Your task to perform on an android device: open device folders in google photos Image 0: 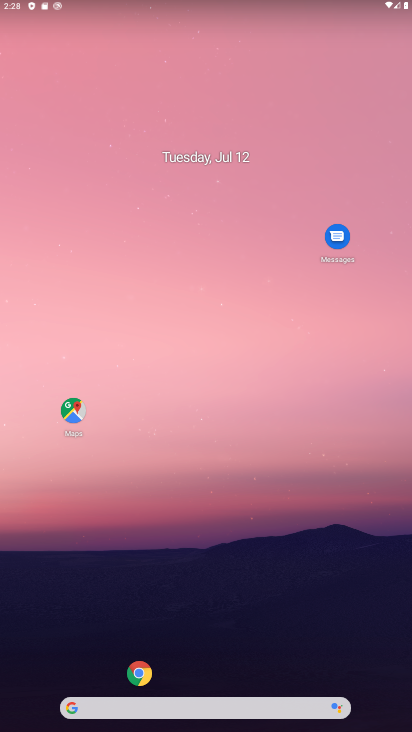
Step 0: drag from (68, 595) to (208, 0)
Your task to perform on an android device: open device folders in google photos Image 1: 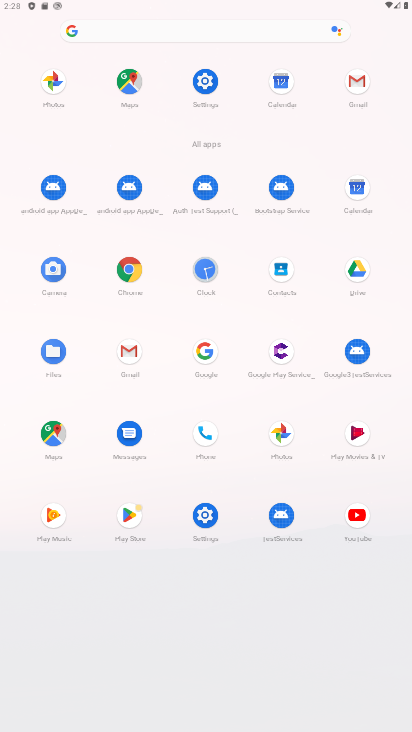
Step 1: click (290, 423)
Your task to perform on an android device: open device folders in google photos Image 2: 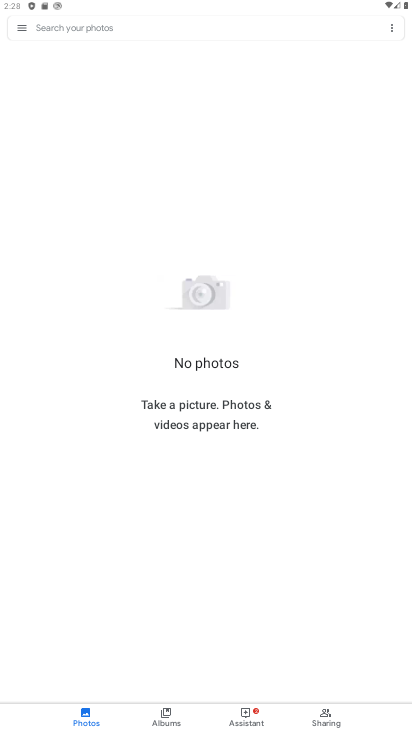
Step 2: click (19, 30)
Your task to perform on an android device: open device folders in google photos Image 3: 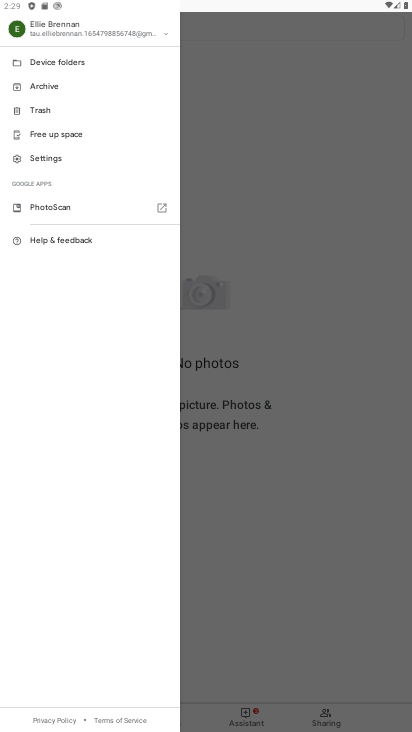
Step 3: click (244, 106)
Your task to perform on an android device: open device folders in google photos Image 4: 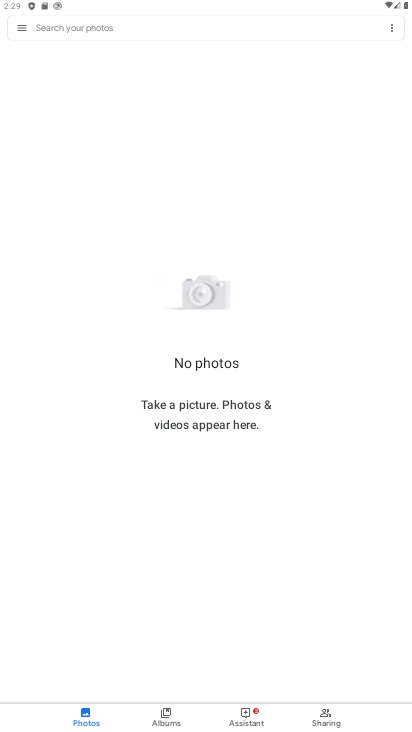
Step 4: click (17, 28)
Your task to perform on an android device: open device folders in google photos Image 5: 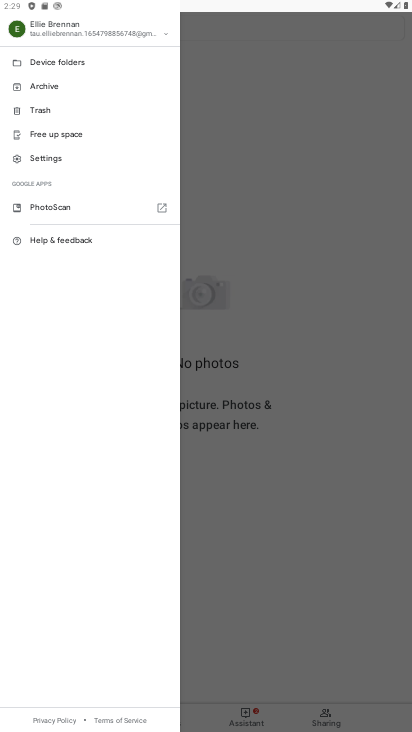
Step 5: click (70, 66)
Your task to perform on an android device: open device folders in google photos Image 6: 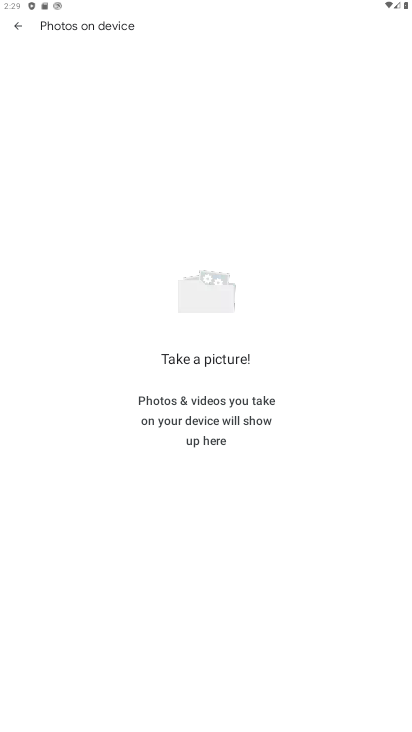
Step 6: task complete